Your task to perform on an android device: Open network settings Image 0: 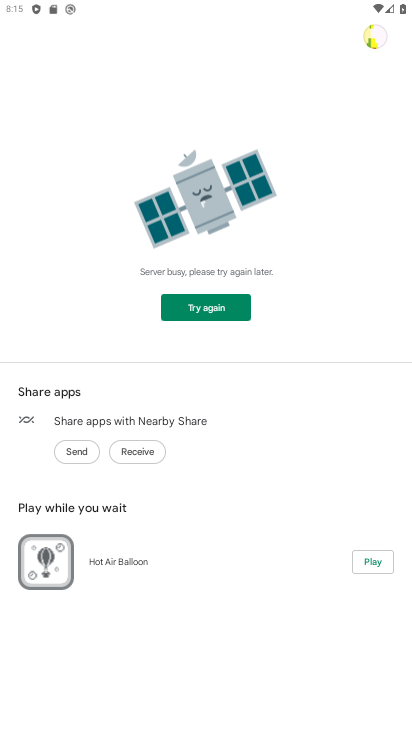
Step 0: press back button
Your task to perform on an android device: Open network settings Image 1: 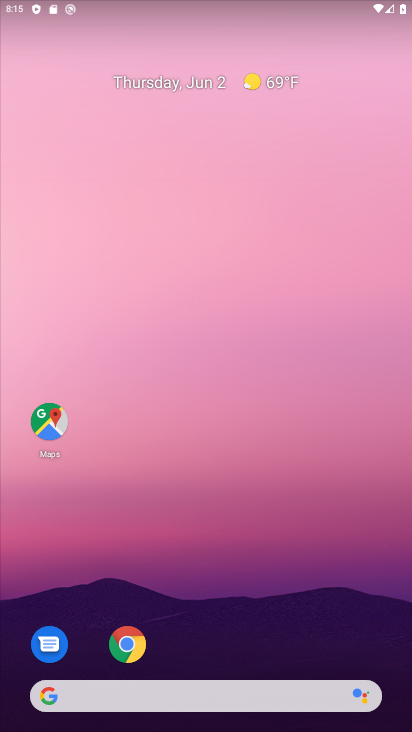
Step 1: drag from (244, 601) to (176, 0)
Your task to perform on an android device: Open network settings Image 2: 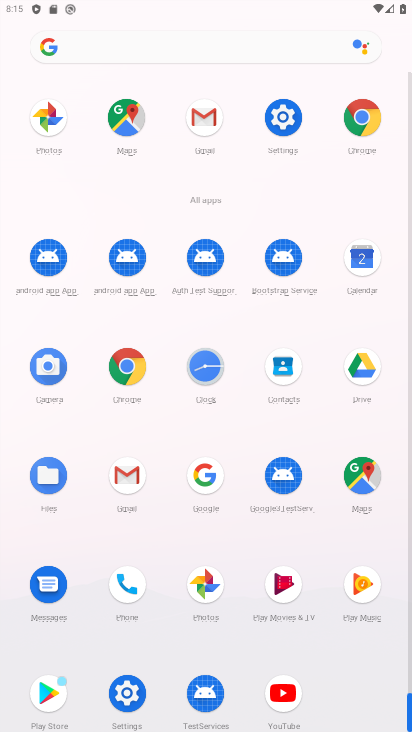
Step 2: drag from (17, 605) to (22, 271)
Your task to perform on an android device: Open network settings Image 3: 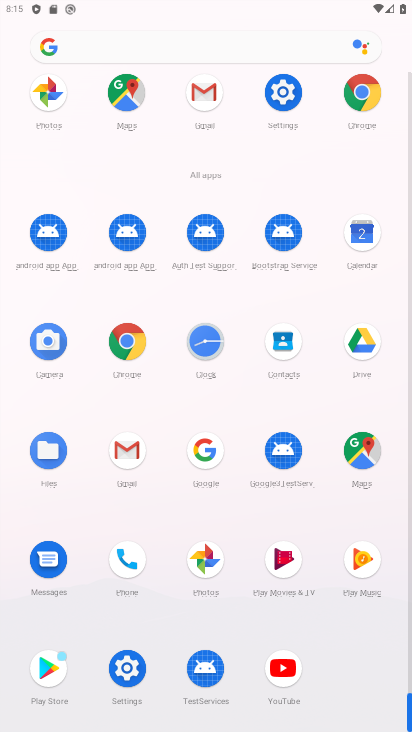
Step 3: click (124, 665)
Your task to perform on an android device: Open network settings Image 4: 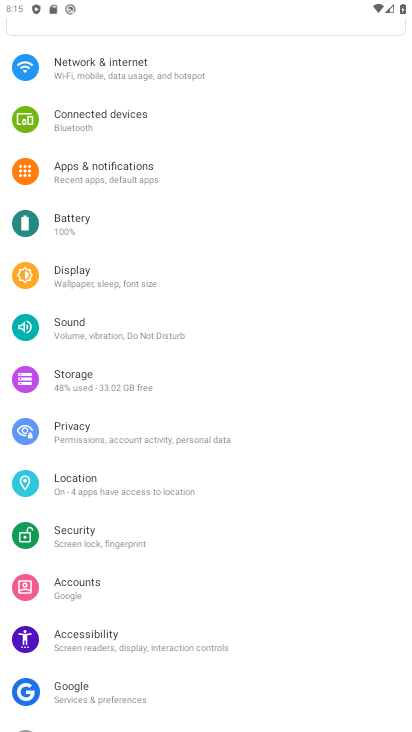
Step 4: drag from (206, 143) to (219, 495)
Your task to perform on an android device: Open network settings Image 5: 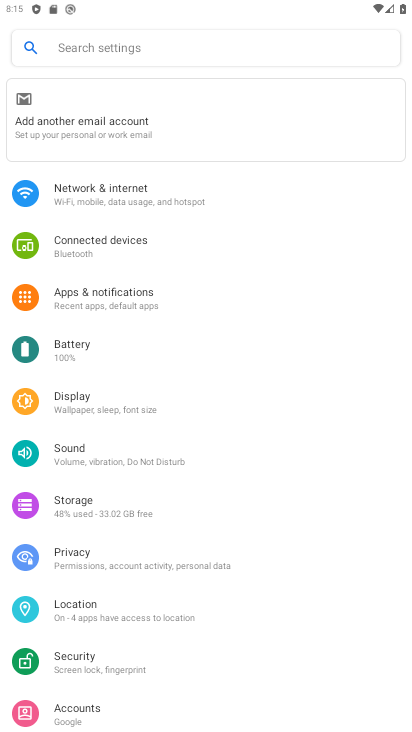
Step 5: click (138, 186)
Your task to perform on an android device: Open network settings Image 6: 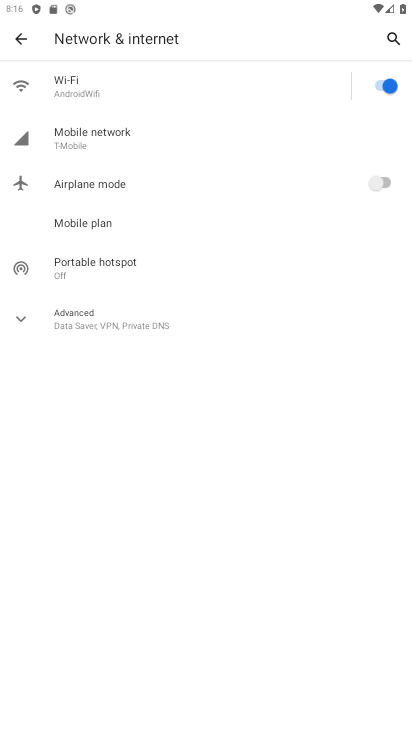
Step 6: click (21, 320)
Your task to perform on an android device: Open network settings Image 7: 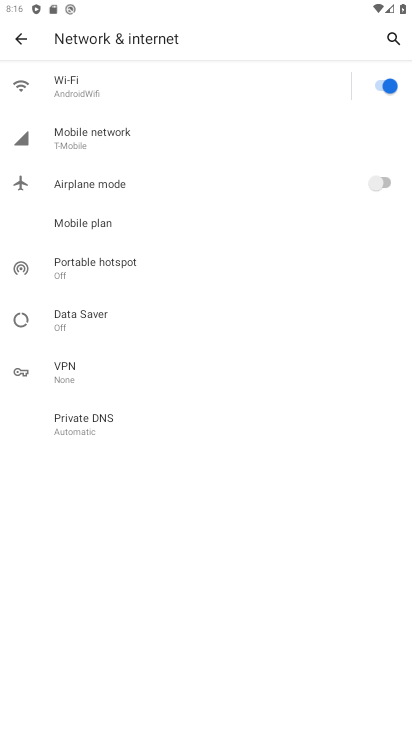
Step 7: task complete